Your task to perform on an android device: open a new tab in the chrome app Image 0: 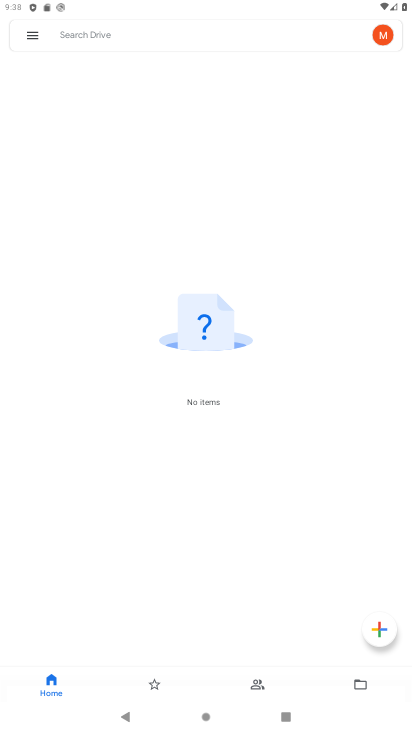
Step 0: press home button
Your task to perform on an android device: open a new tab in the chrome app Image 1: 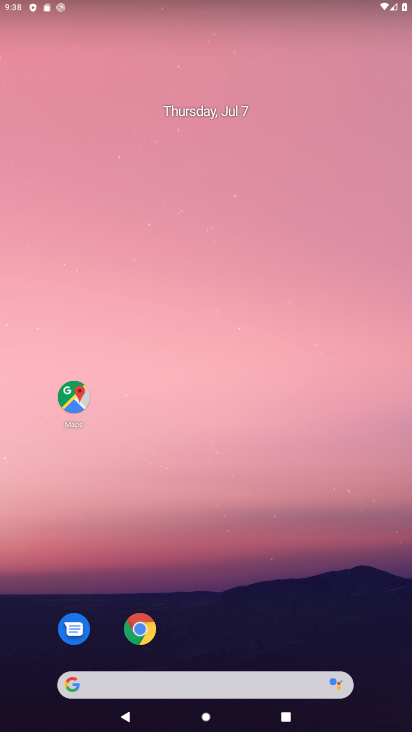
Step 1: click (135, 625)
Your task to perform on an android device: open a new tab in the chrome app Image 2: 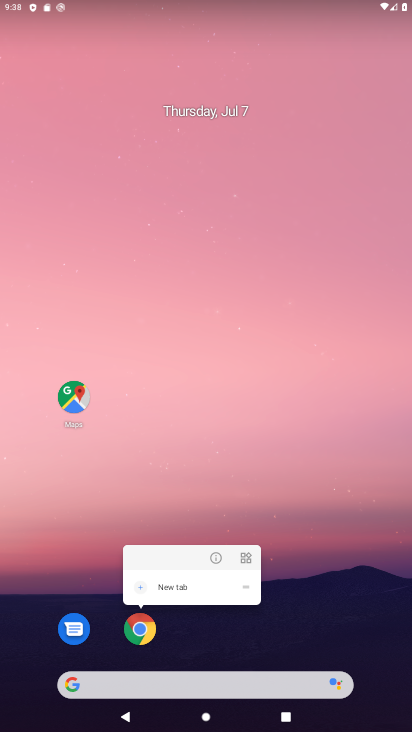
Step 2: click (147, 619)
Your task to perform on an android device: open a new tab in the chrome app Image 3: 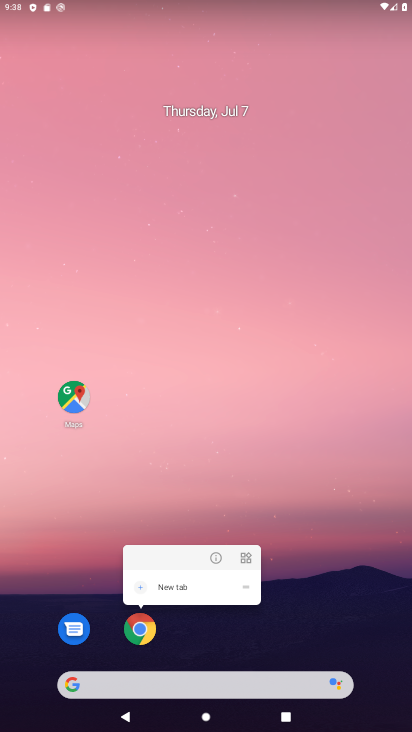
Step 3: click (133, 627)
Your task to perform on an android device: open a new tab in the chrome app Image 4: 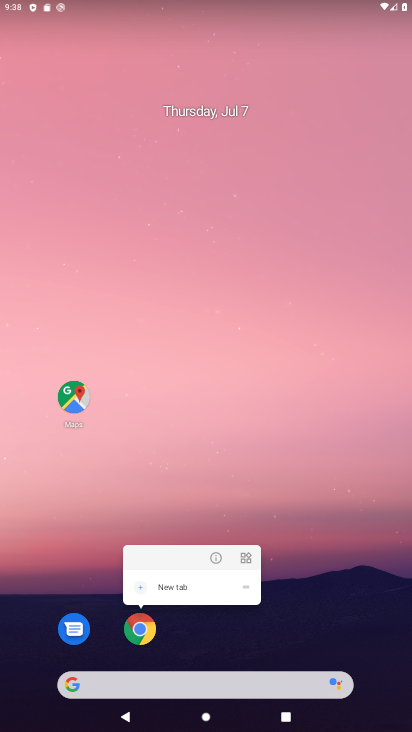
Step 4: click (143, 636)
Your task to perform on an android device: open a new tab in the chrome app Image 5: 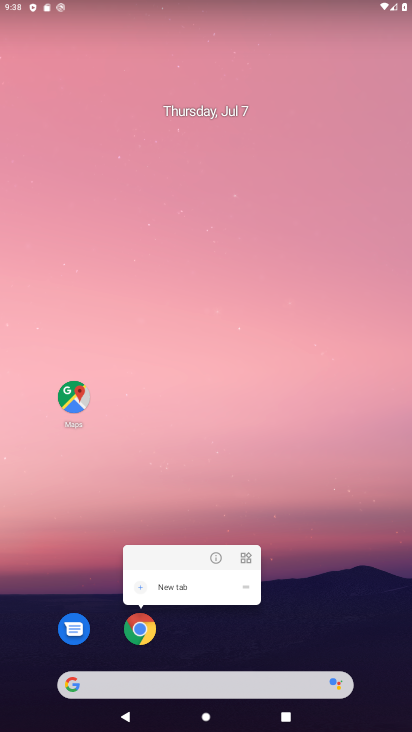
Step 5: click (142, 631)
Your task to perform on an android device: open a new tab in the chrome app Image 6: 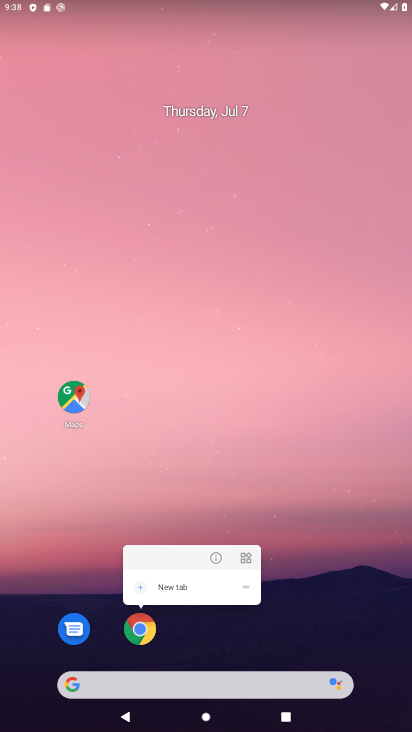
Step 6: task complete